Your task to perform on an android device: Search for Italian restaurants on Maps Image 0: 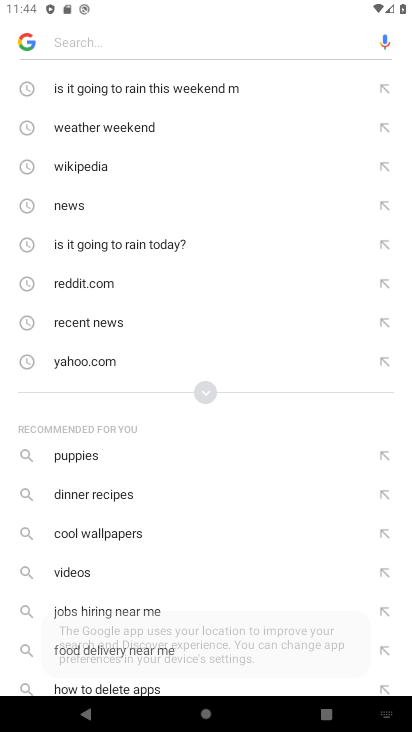
Step 0: press home button
Your task to perform on an android device: Search for Italian restaurants on Maps Image 1: 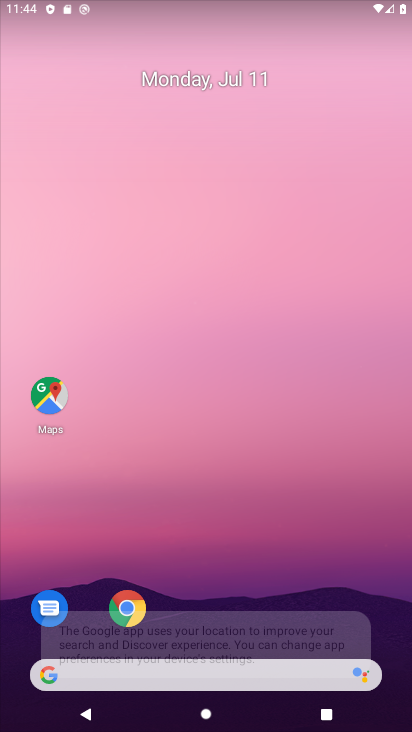
Step 1: click (47, 389)
Your task to perform on an android device: Search for Italian restaurants on Maps Image 2: 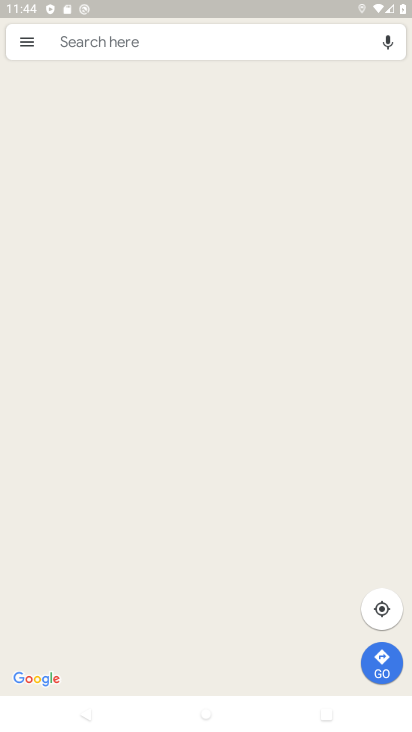
Step 2: click (118, 45)
Your task to perform on an android device: Search for Italian restaurants on Maps Image 3: 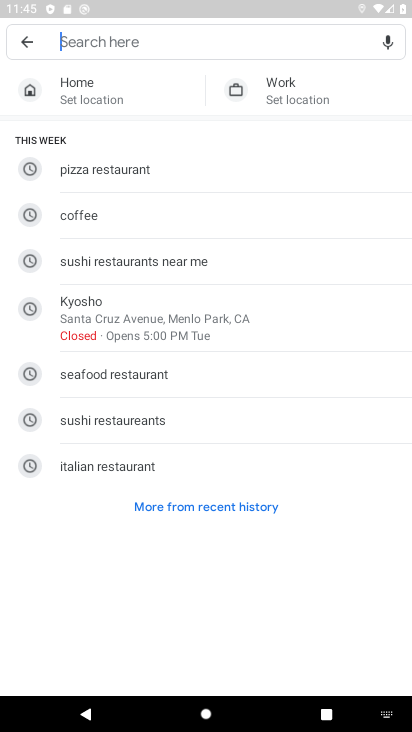
Step 3: click (117, 465)
Your task to perform on an android device: Search for Italian restaurants on Maps Image 4: 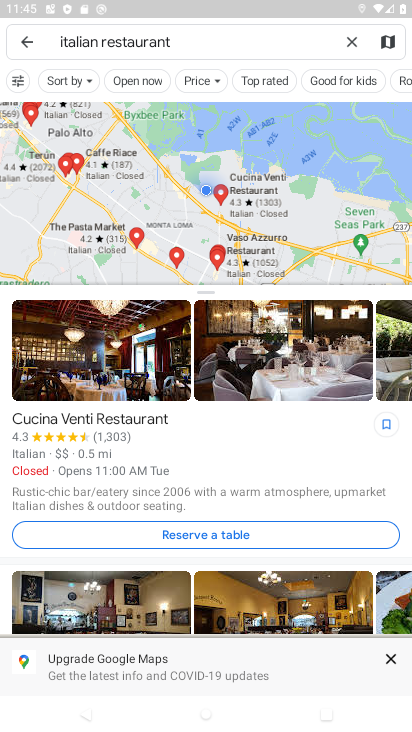
Step 4: task complete